Your task to perform on an android device: Play the last video I watched on Youtube Image 0: 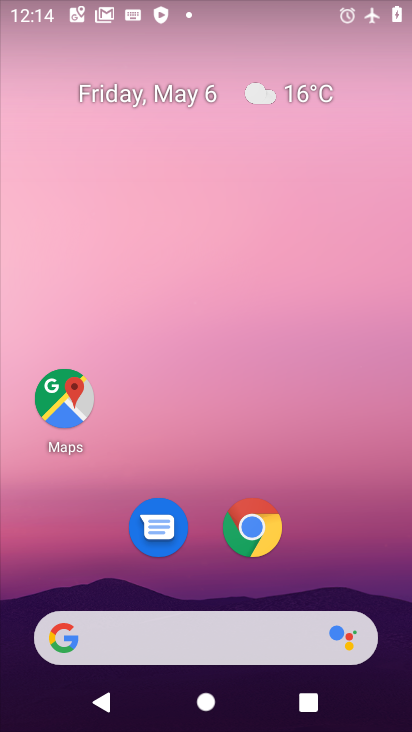
Step 0: drag from (315, 549) to (97, 161)
Your task to perform on an android device: Play the last video I watched on Youtube Image 1: 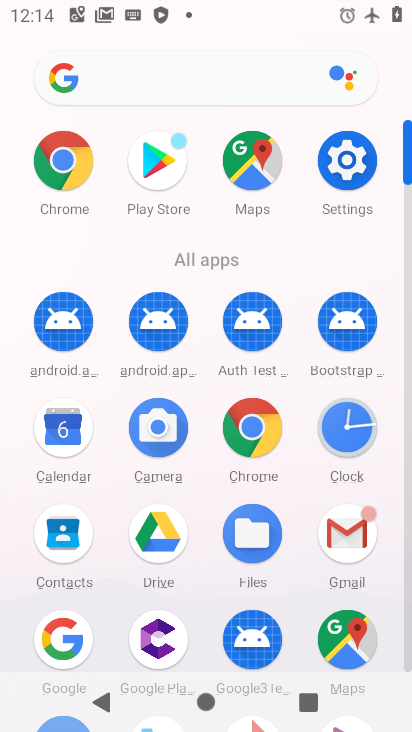
Step 1: drag from (203, 607) to (203, 236)
Your task to perform on an android device: Play the last video I watched on Youtube Image 2: 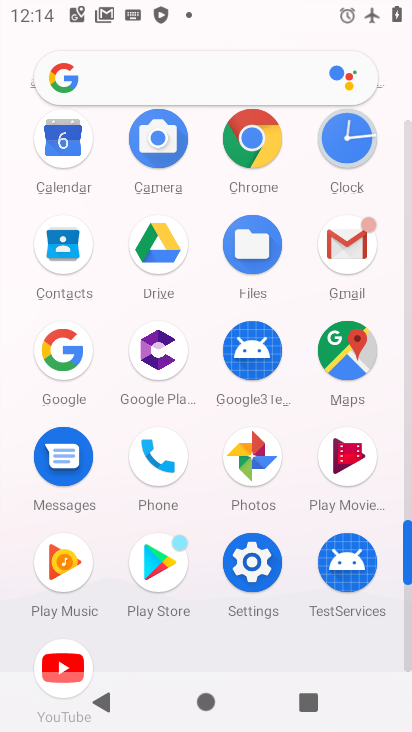
Step 2: click (54, 653)
Your task to perform on an android device: Play the last video I watched on Youtube Image 3: 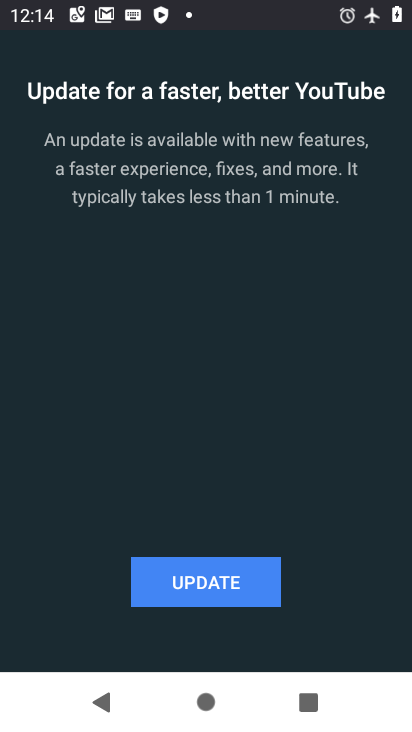
Step 3: click (210, 580)
Your task to perform on an android device: Play the last video I watched on Youtube Image 4: 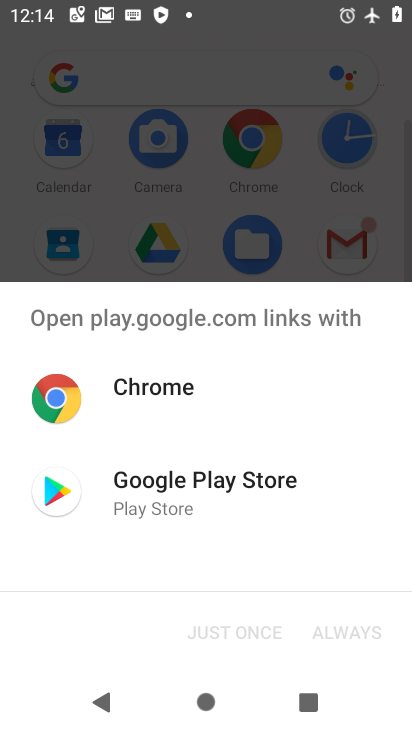
Step 4: click (176, 507)
Your task to perform on an android device: Play the last video I watched on Youtube Image 5: 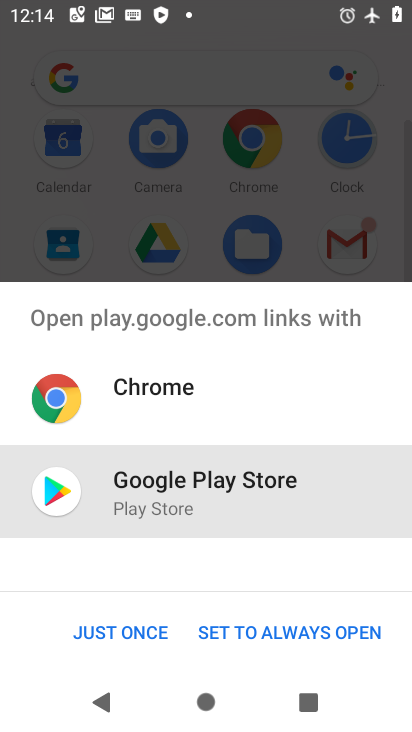
Step 5: drag from (220, 627) to (138, 629)
Your task to perform on an android device: Play the last video I watched on Youtube Image 6: 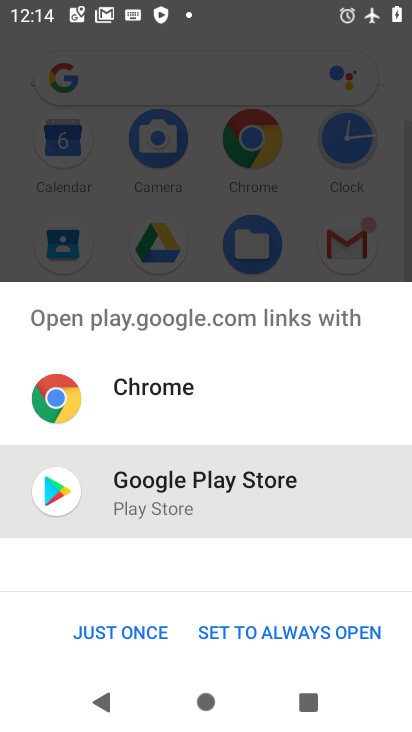
Step 6: click (115, 629)
Your task to perform on an android device: Play the last video I watched on Youtube Image 7: 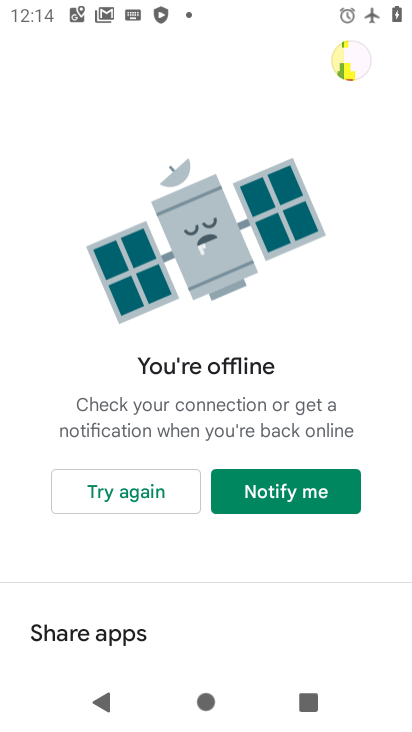
Step 7: click (160, 497)
Your task to perform on an android device: Play the last video I watched on Youtube Image 8: 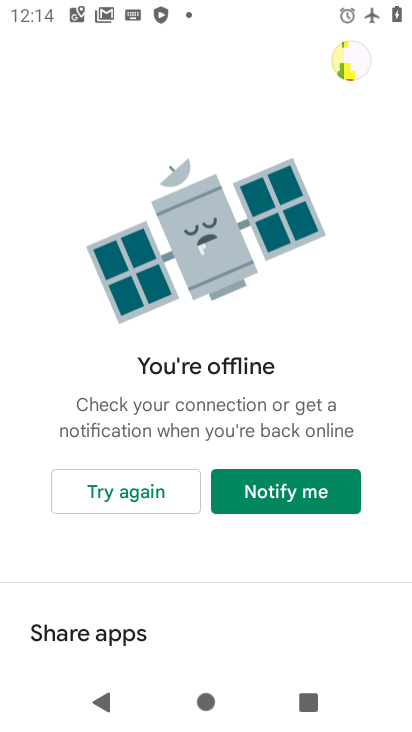
Step 8: click (160, 497)
Your task to perform on an android device: Play the last video I watched on Youtube Image 9: 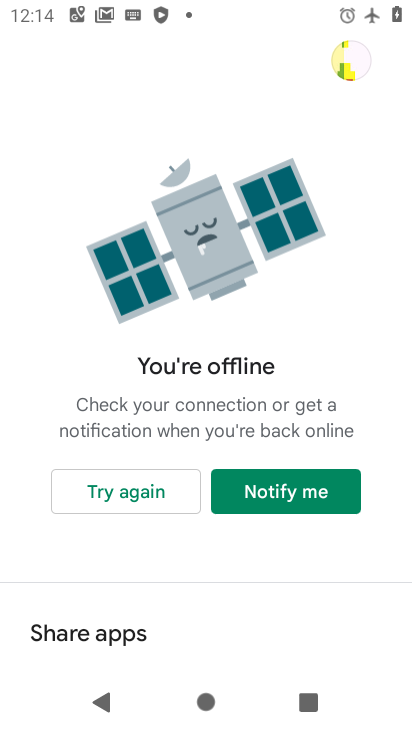
Step 9: task complete